Your task to perform on an android device: Open Reddit.com Image 0: 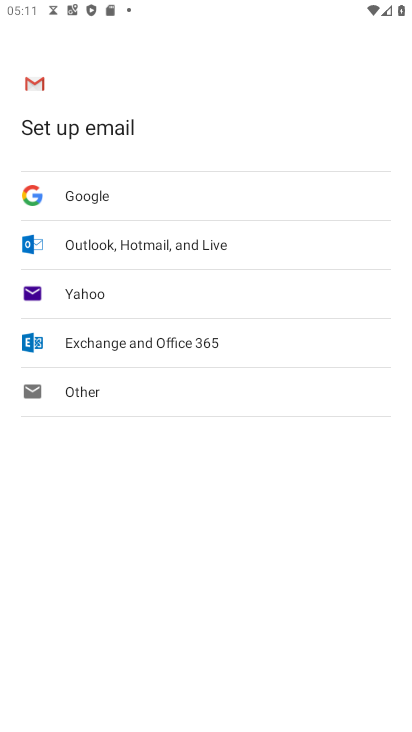
Step 0: press home button
Your task to perform on an android device: Open Reddit.com Image 1: 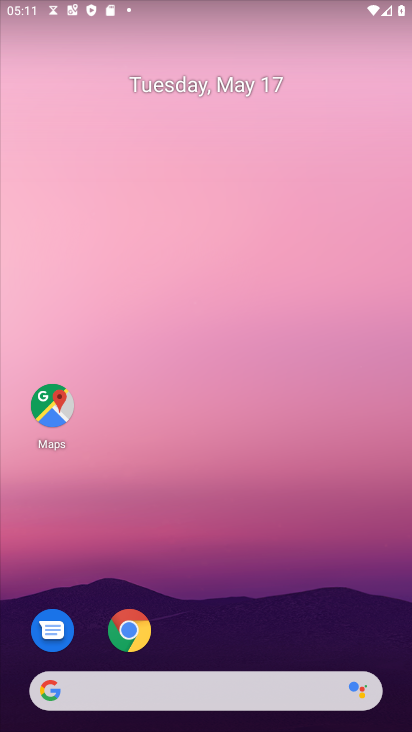
Step 1: click (112, 628)
Your task to perform on an android device: Open Reddit.com Image 2: 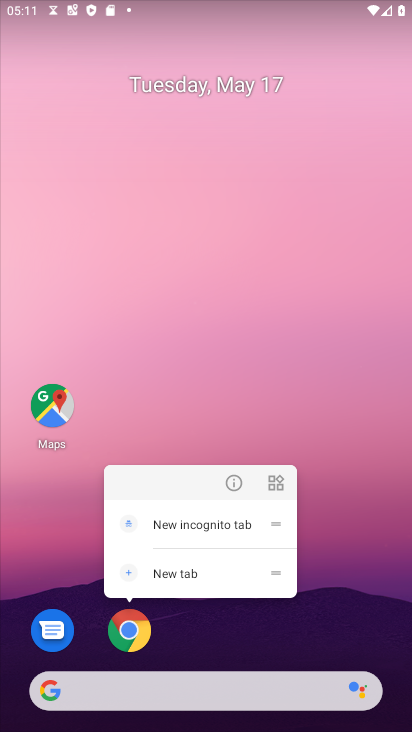
Step 2: click (131, 631)
Your task to perform on an android device: Open Reddit.com Image 3: 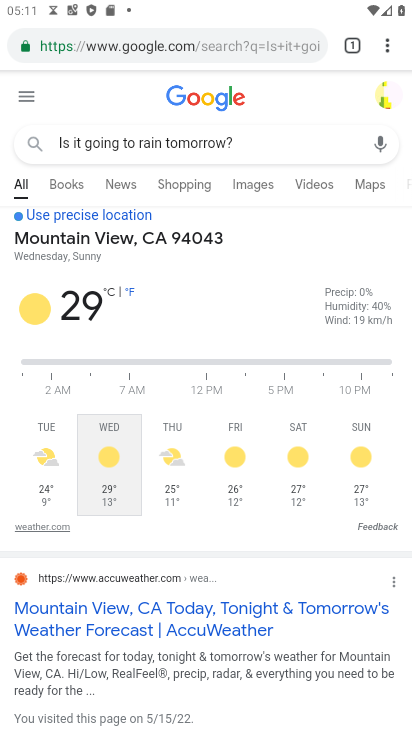
Step 3: click (115, 49)
Your task to perform on an android device: Open Reddit.com Image 4: 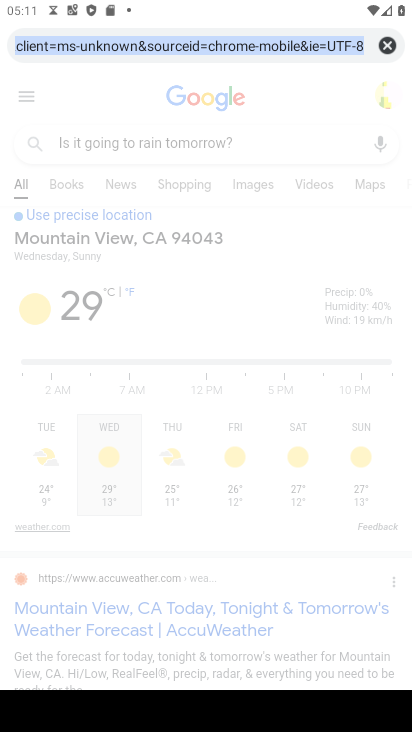
Step 4: click (380, 46)
Your task to perform on an android device: Open Reddit.com Image 5: 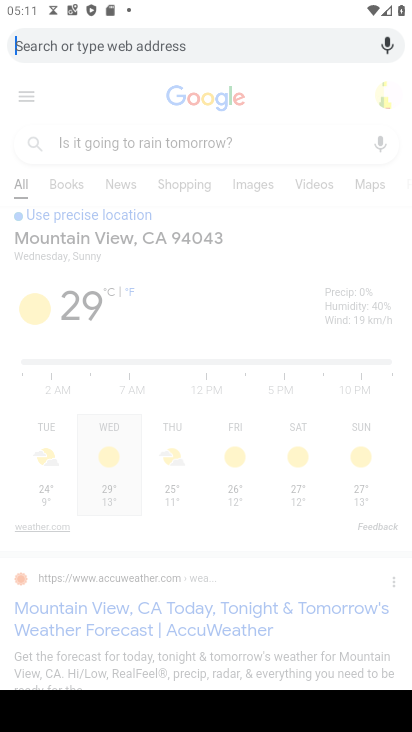
Step 5: type " Reddit.com"
Your task to perform on an android device: Open Reddit.com Image 6: 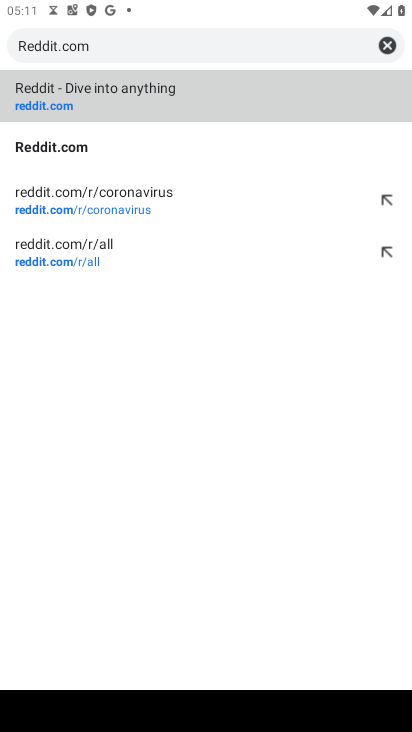
Step 6: click (26, 108)
Your task to perform on an android device: Open Reddit.com Image 7: 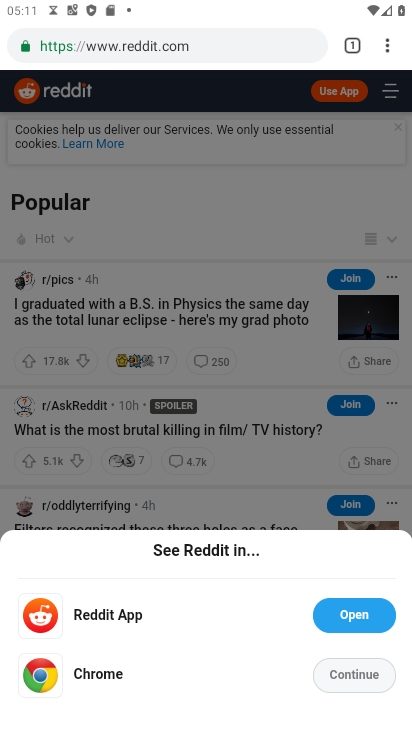
Step 7: task complete